Your task to perform on an android device: Go to CNN.com Image 0: 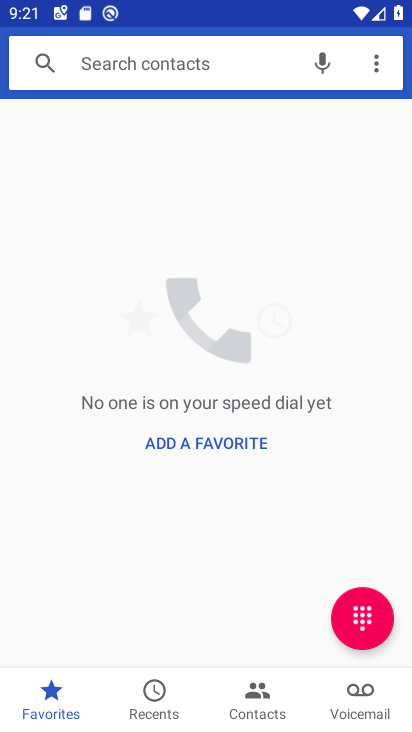
Step 0: press home button
Your task to perform on an android device: Go to CNN.com Image 1: 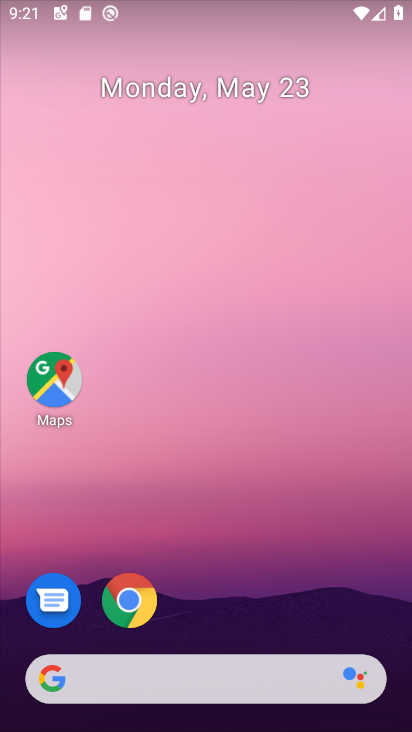
Step 1: click (128, 603)
Your task to perform on an android device: Go to CNN.com Image 2: 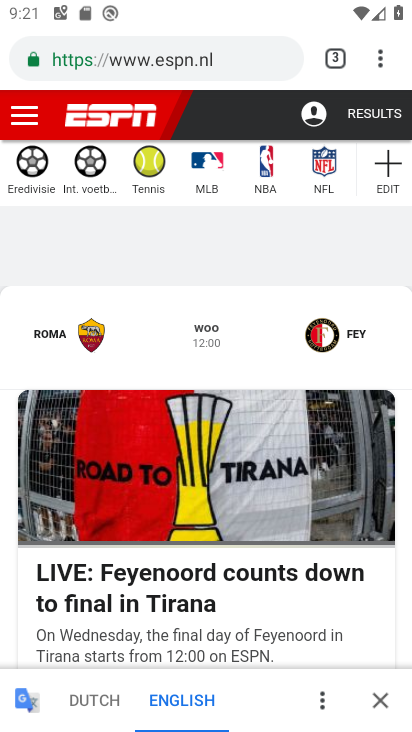
Step 2: click (382, 63)
Your task to perform on an android device: Go to CNN.com Image 3: 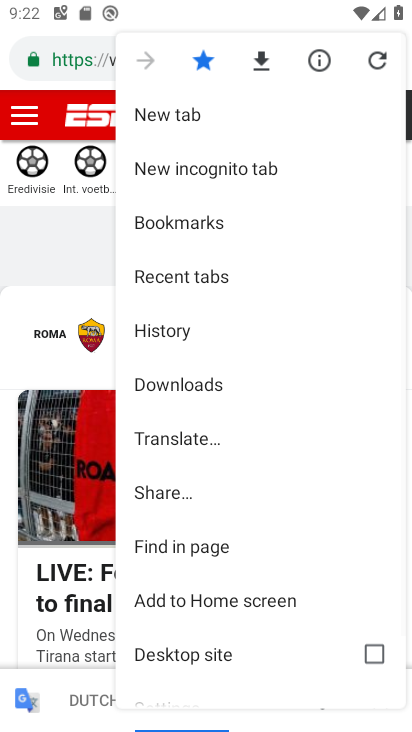
Step 3: click (188, 113)
Your task to perform on an android device: Go to CNN.com Image 4: 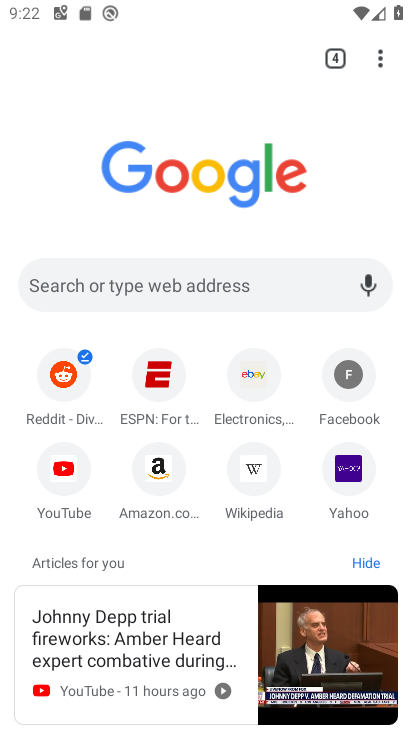
Step 4: click (214, 274)
Your task to perform on an android device: Go to CNN.com Image 5: 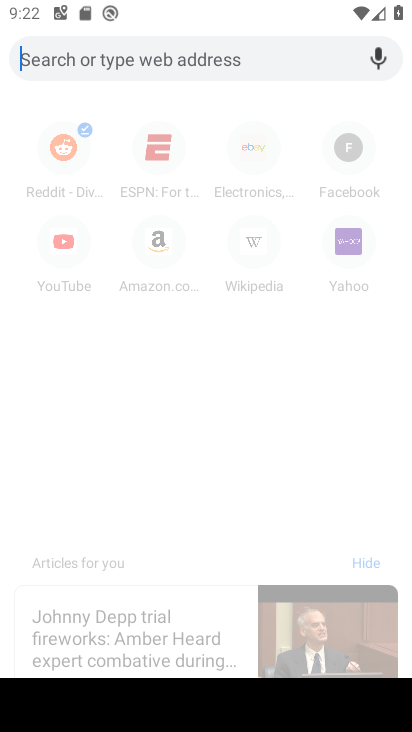
Step 5: type "CNN.com"
Your task to perform on an android device: Go to CNN.com Image 6: 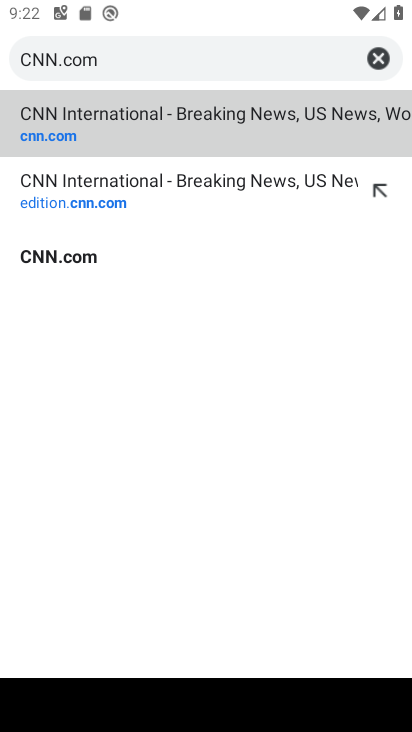
Step 6: click (86, 114)
Your task to perform on an android device: Go to CNN.com Image 7: 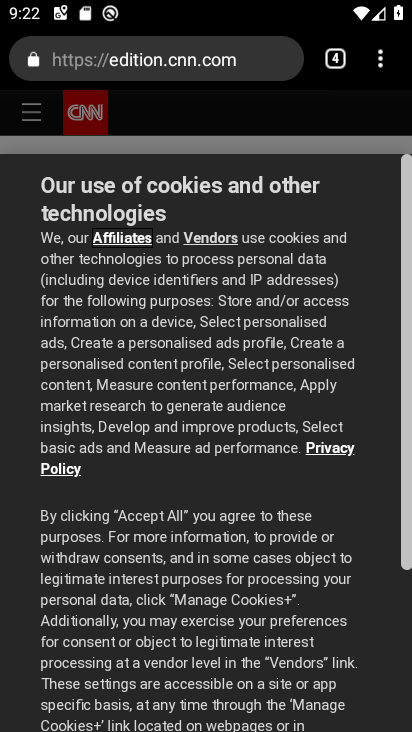
Step 7: task complete